Your task to perform on an android device: Open display settings Image 0: 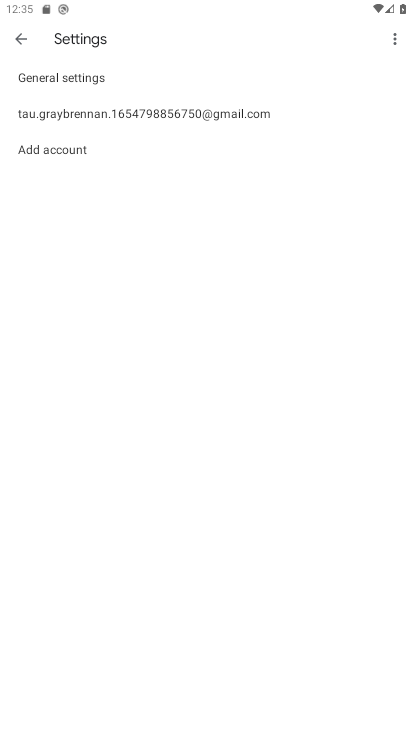
Step 0: press home button
Your task to perform on an android device: Open display settings Image 1: 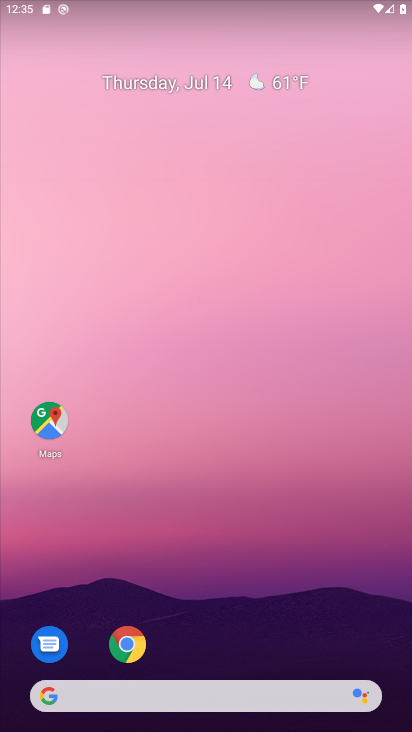
Step 1: drag from (288, 598) to (324, 159)
Your task to perform on an android device: Open display settings Image 2: 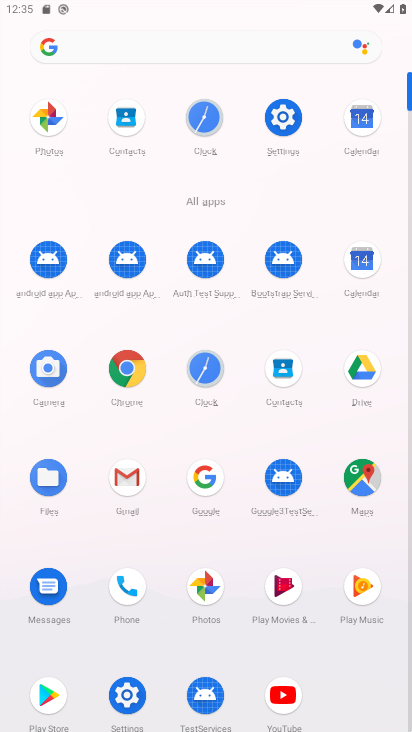
Step 2: click (289, 118)
Your task to perform on an android device: Open display settings Image 3: 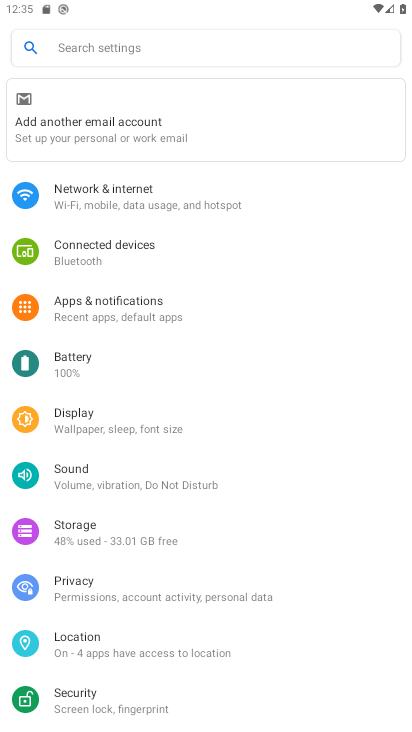
Step 3: click (112, 422)
Your task to perform on an android device: Open display settings Image 4: 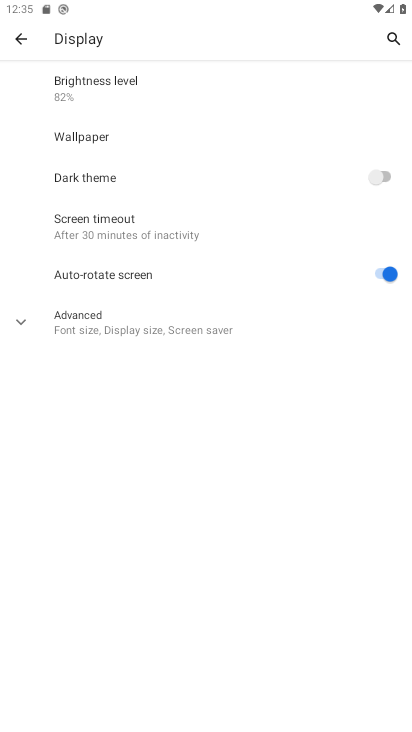
Step 4: task complete